Your task to perform on an android device: turn off location history Image 0: 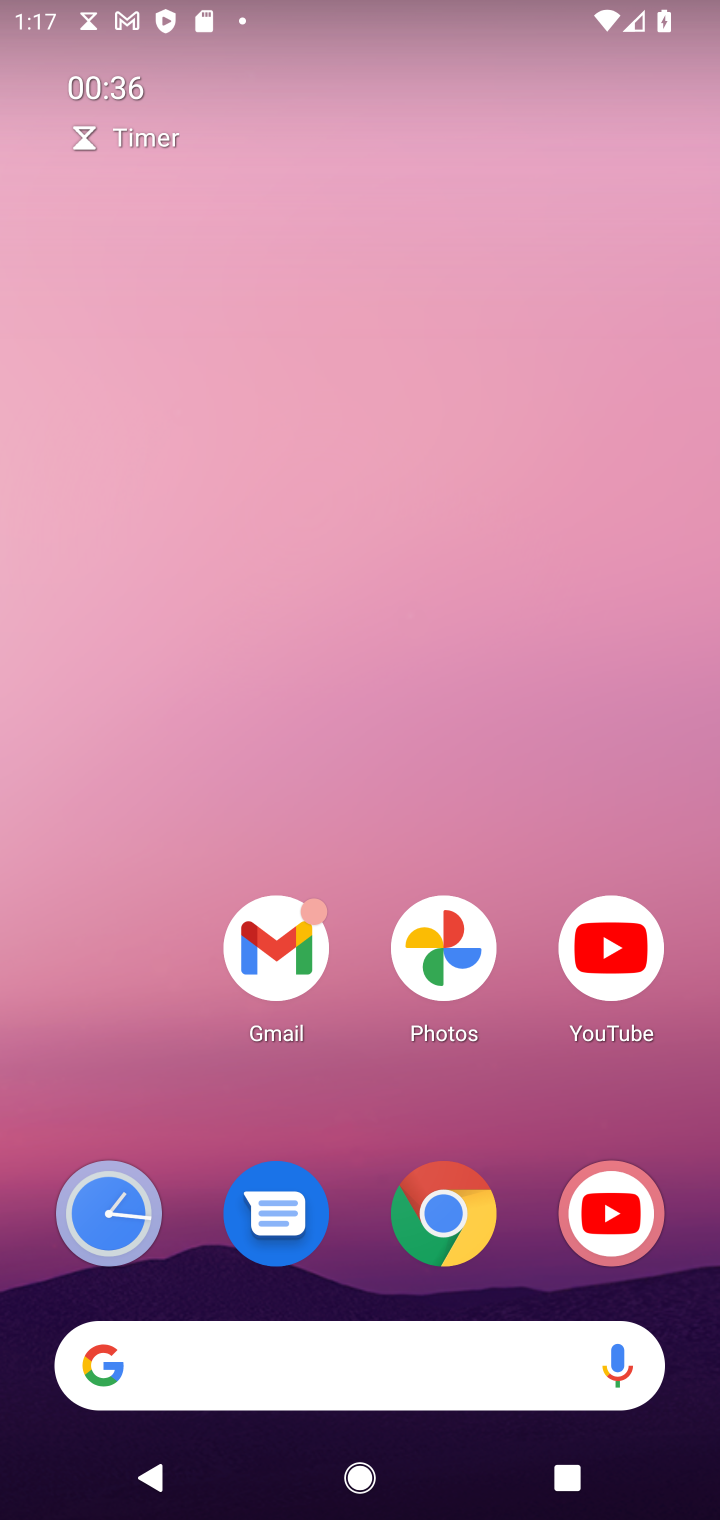
Step 0: drag from (446, 1355) to (645, 0)
Your task to perform on an android device: turn off location history Image 1: 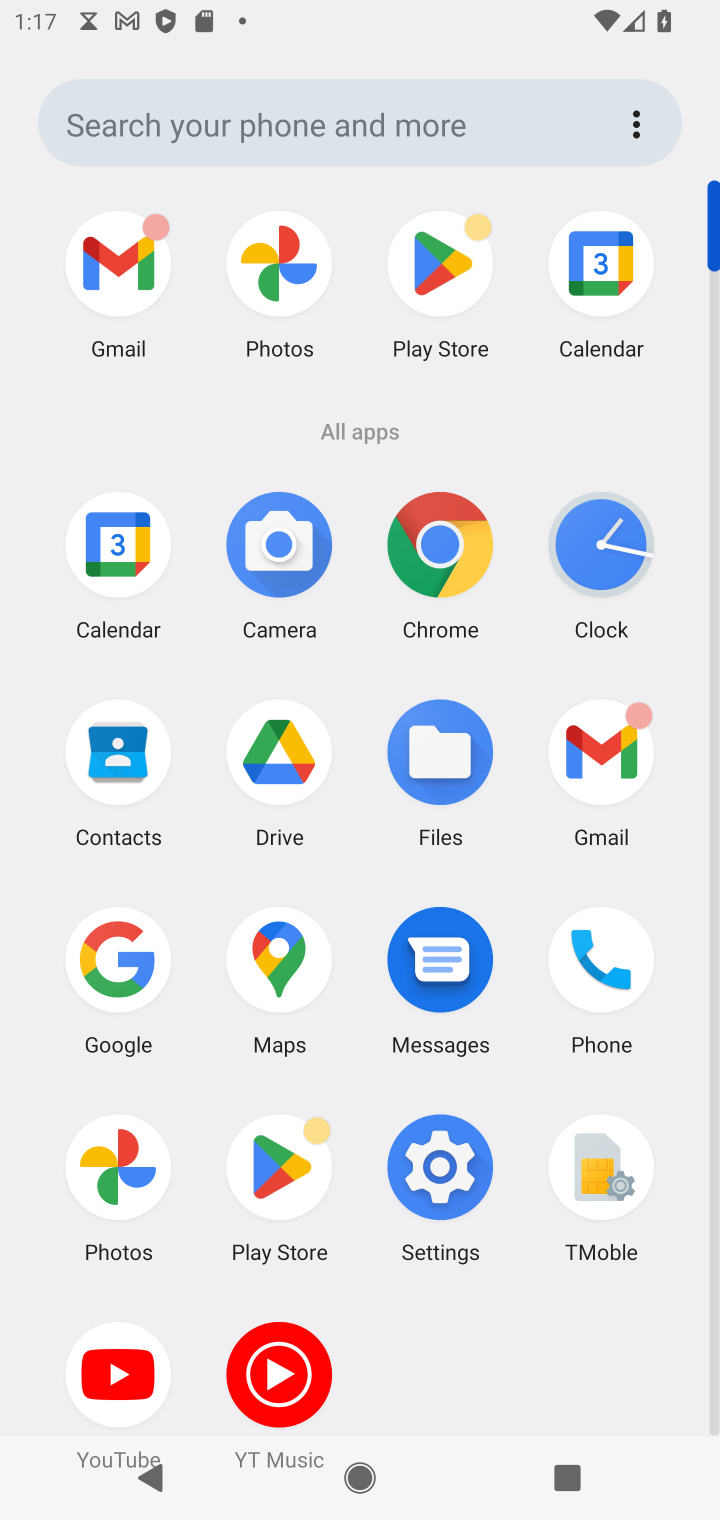
Step 1: click (442, 1183)
Your task to perform on an android device: turn off location history Image 2: 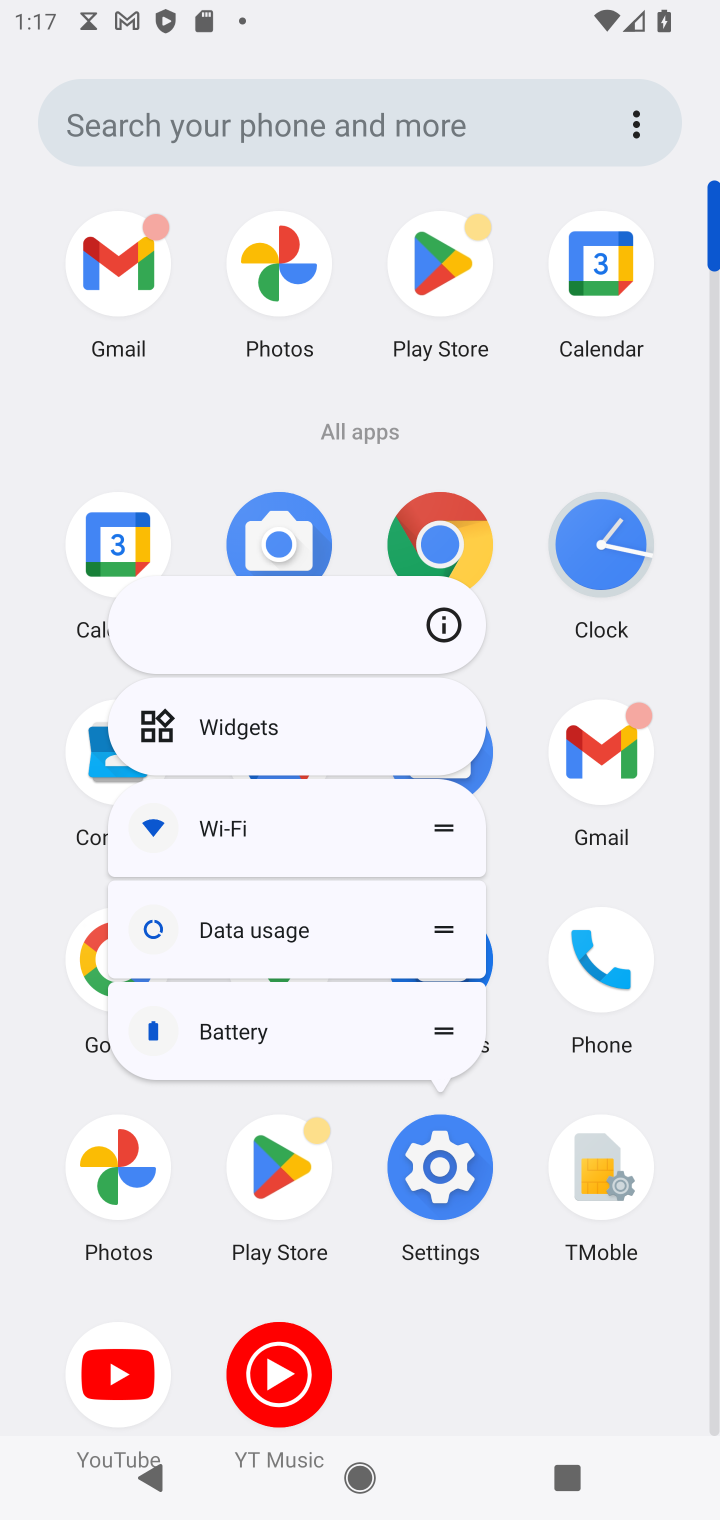
Step 2: click (442, 1183)
Your task to perform on an android device: turn off location history Image 3: 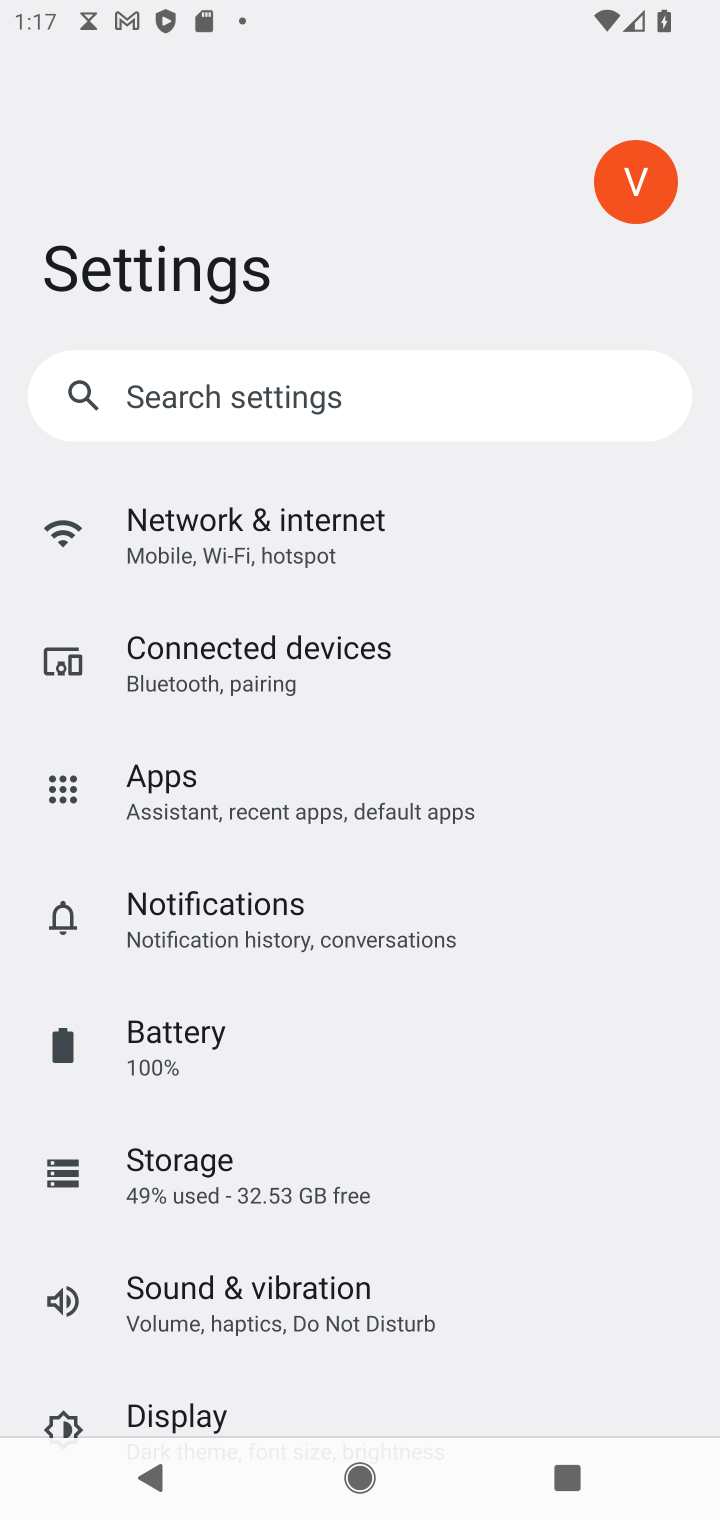
Step 3: drag from (394, 1258) to (374, 493)
Your task to perform on an android device: turn off location history Image 4: 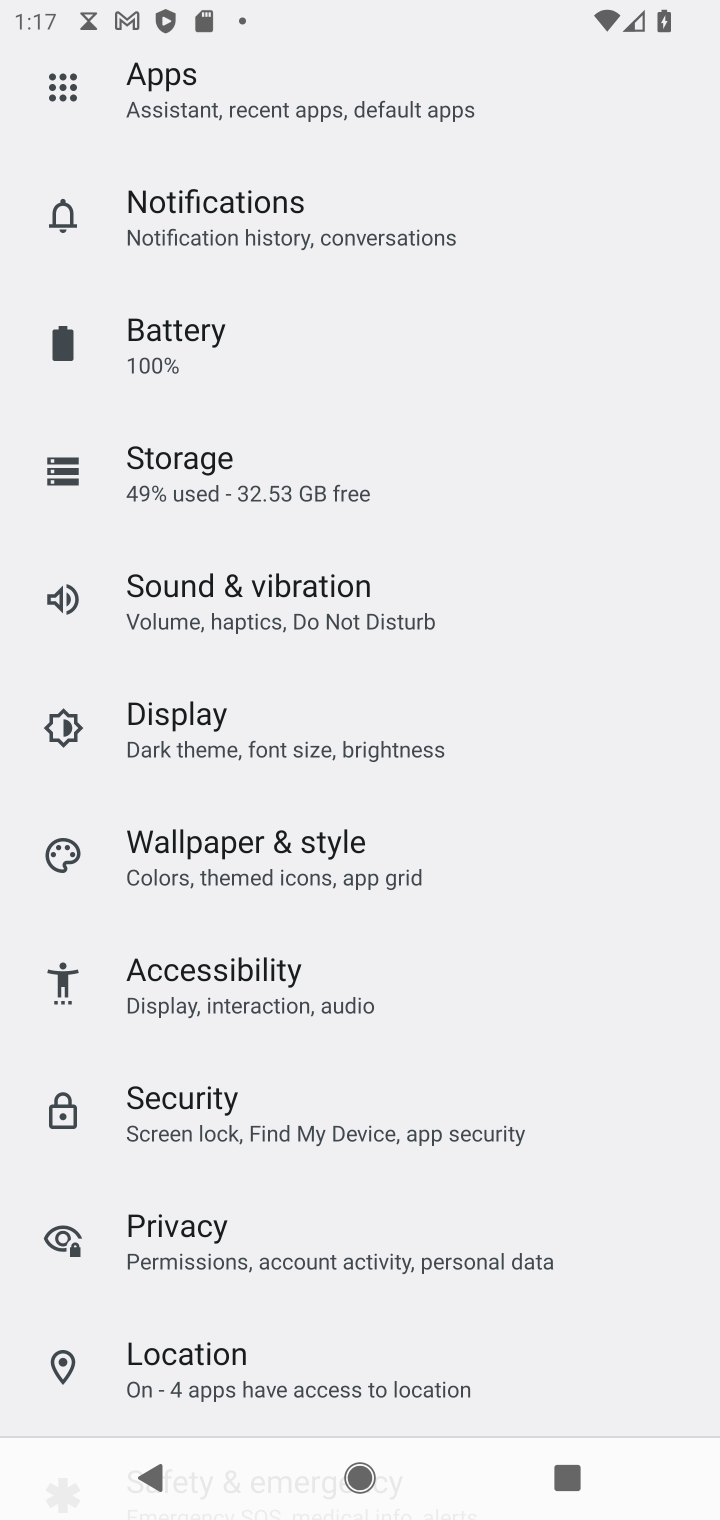
Step 4: click (323, 1359)
Your task to perform on an android device: turn off location history Image 5: 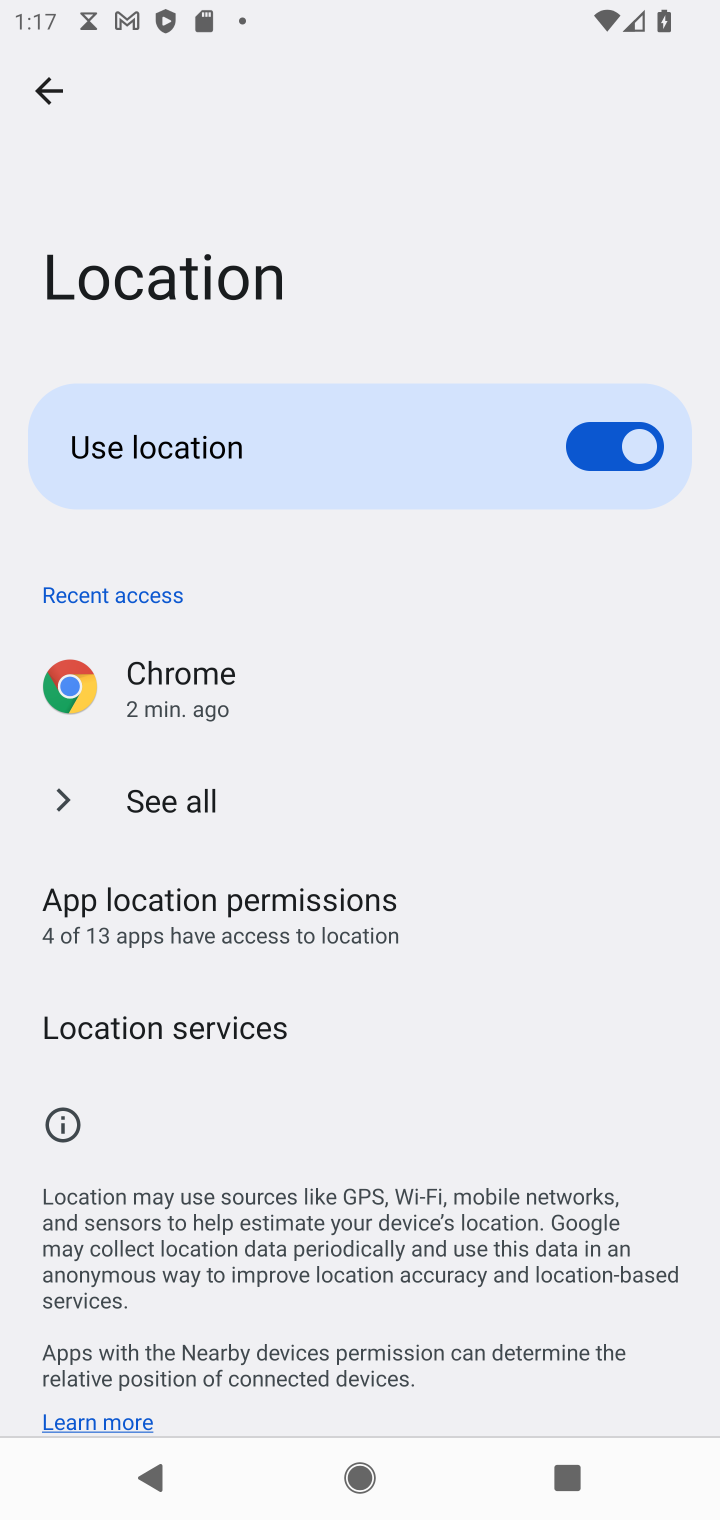
Step 5: drag from (339, 1215) to (506, 497)
Your task to perform on an android device: turn off location history Image 6: 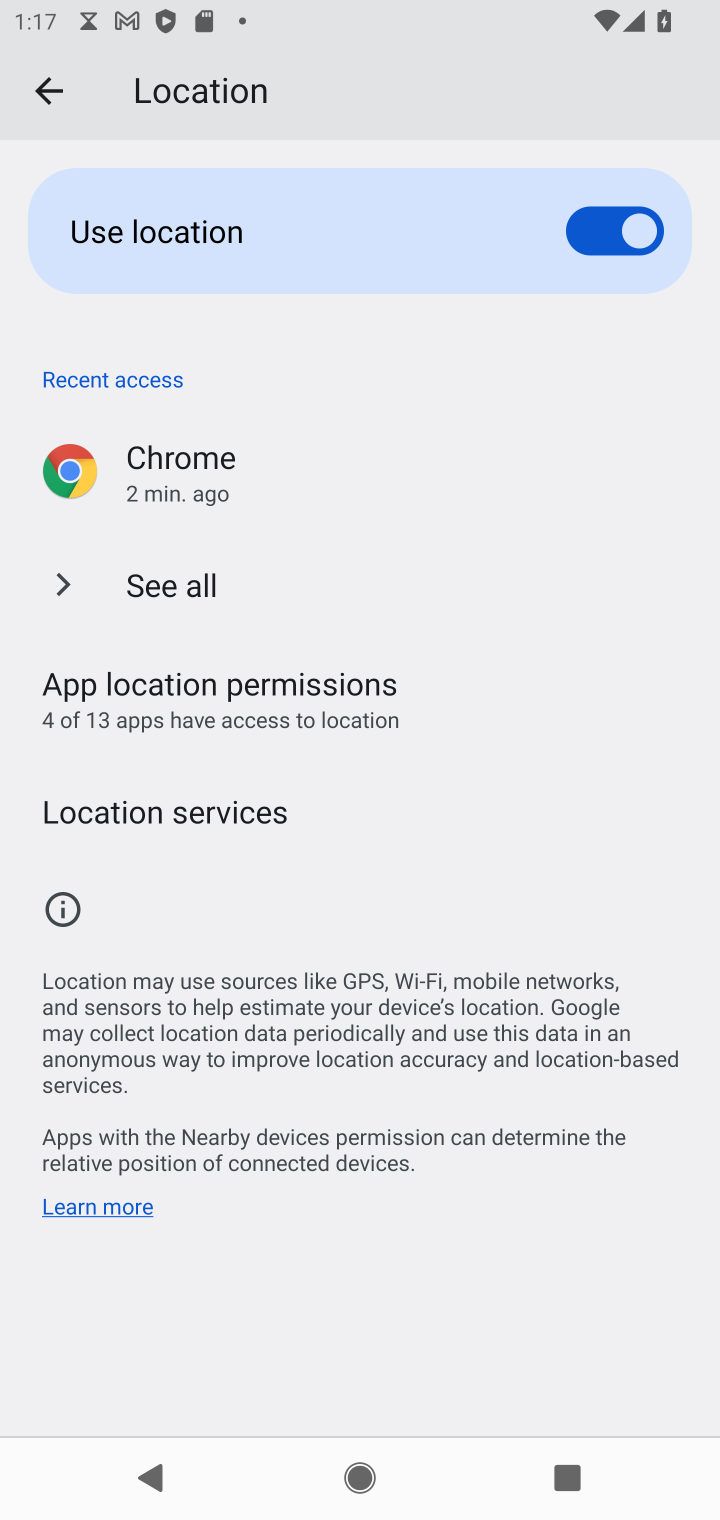
Step 6: click (232, 800)
Your task to perform on an android device: turn off location history Image 7: 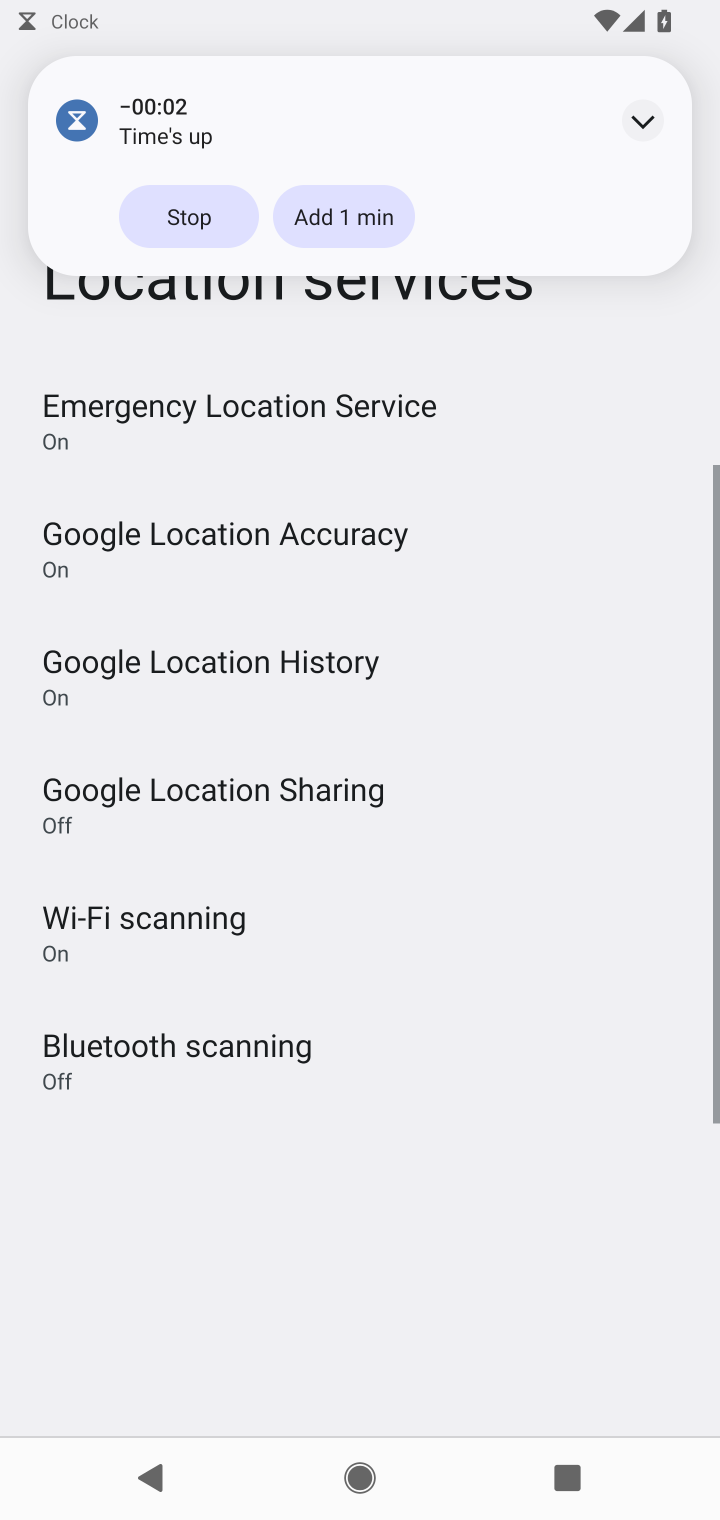
Step 7: click (257, 680)
Your task to perform on an android device: turn off location history Image 8: 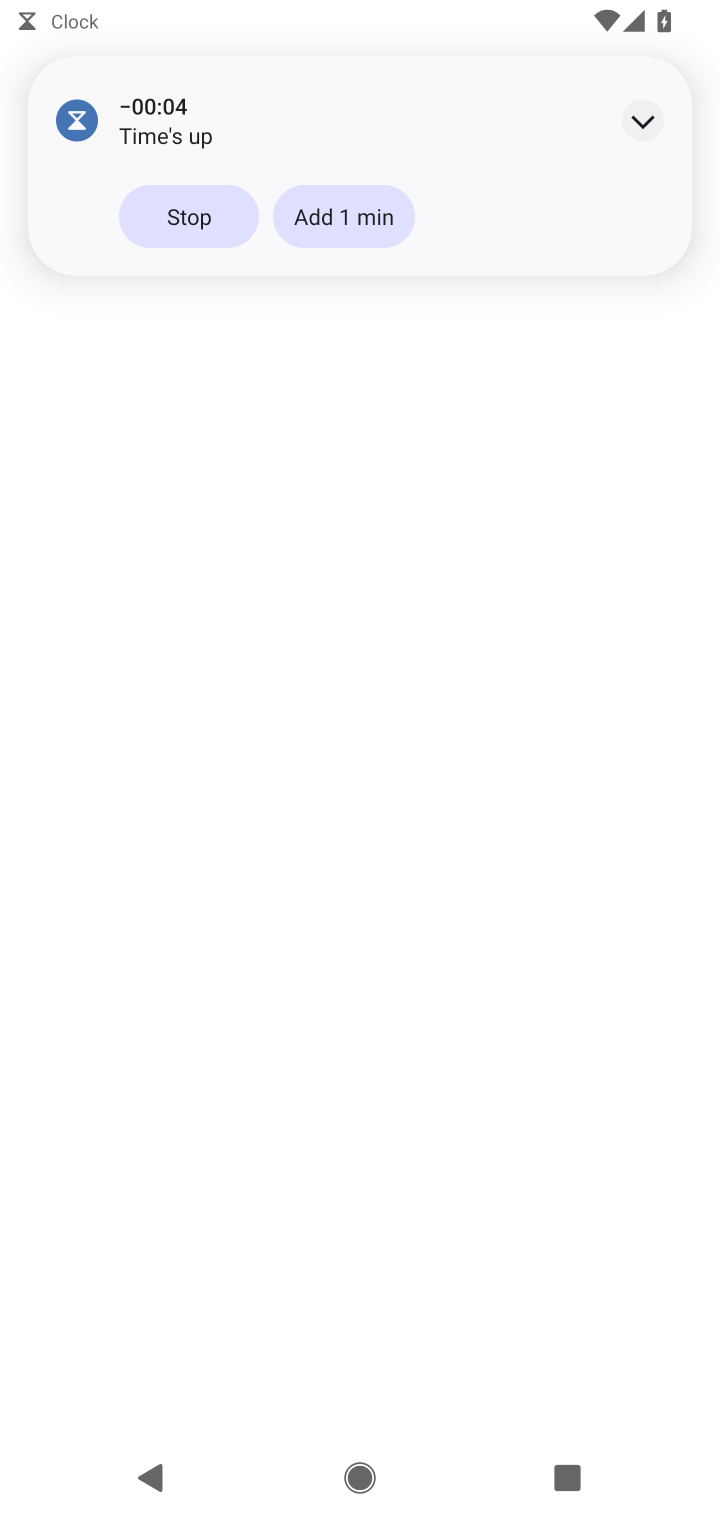
Step 8: click (189, 213)
Your task to perform on an android device: turn off location history Image 9: 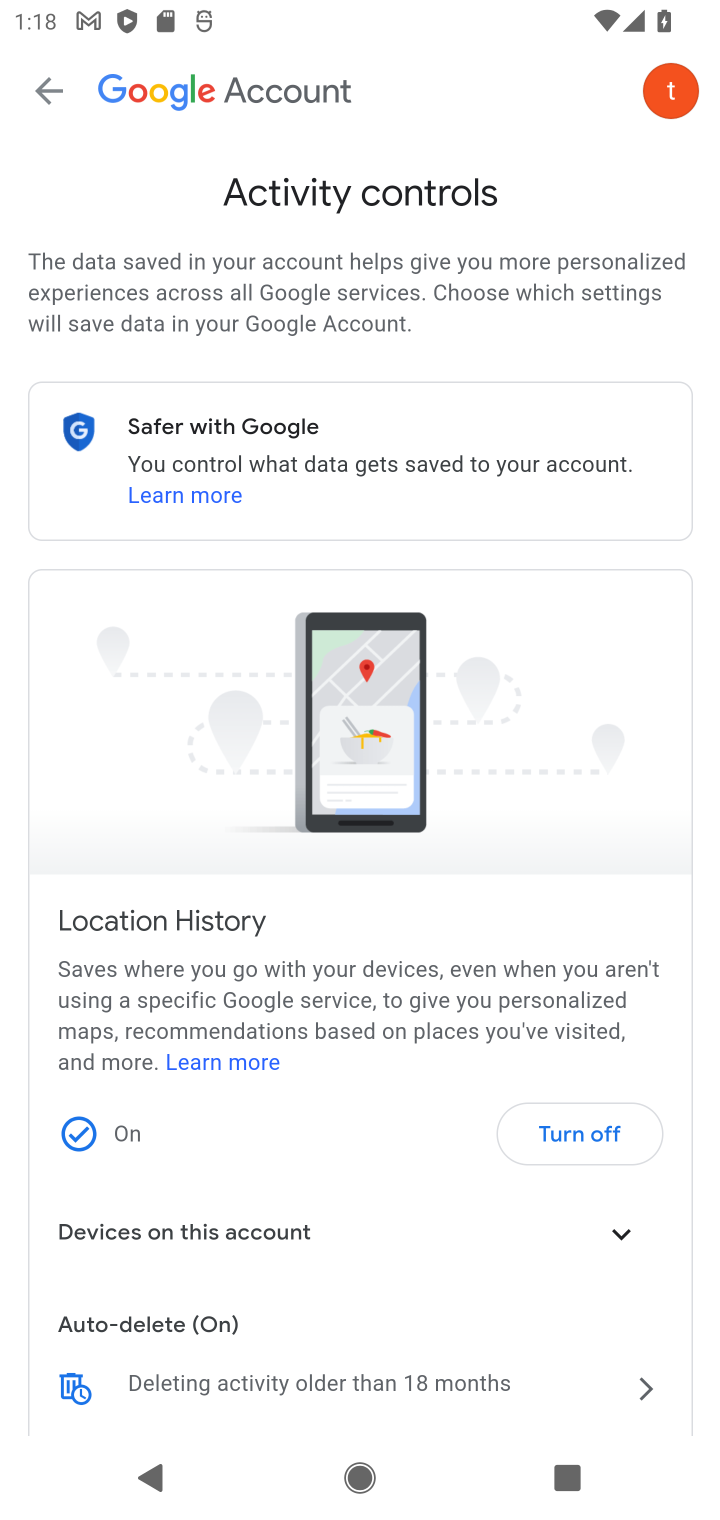
Step 9: click (610, 1133)
Your task to perform on an android device: turn off location history Image 10: 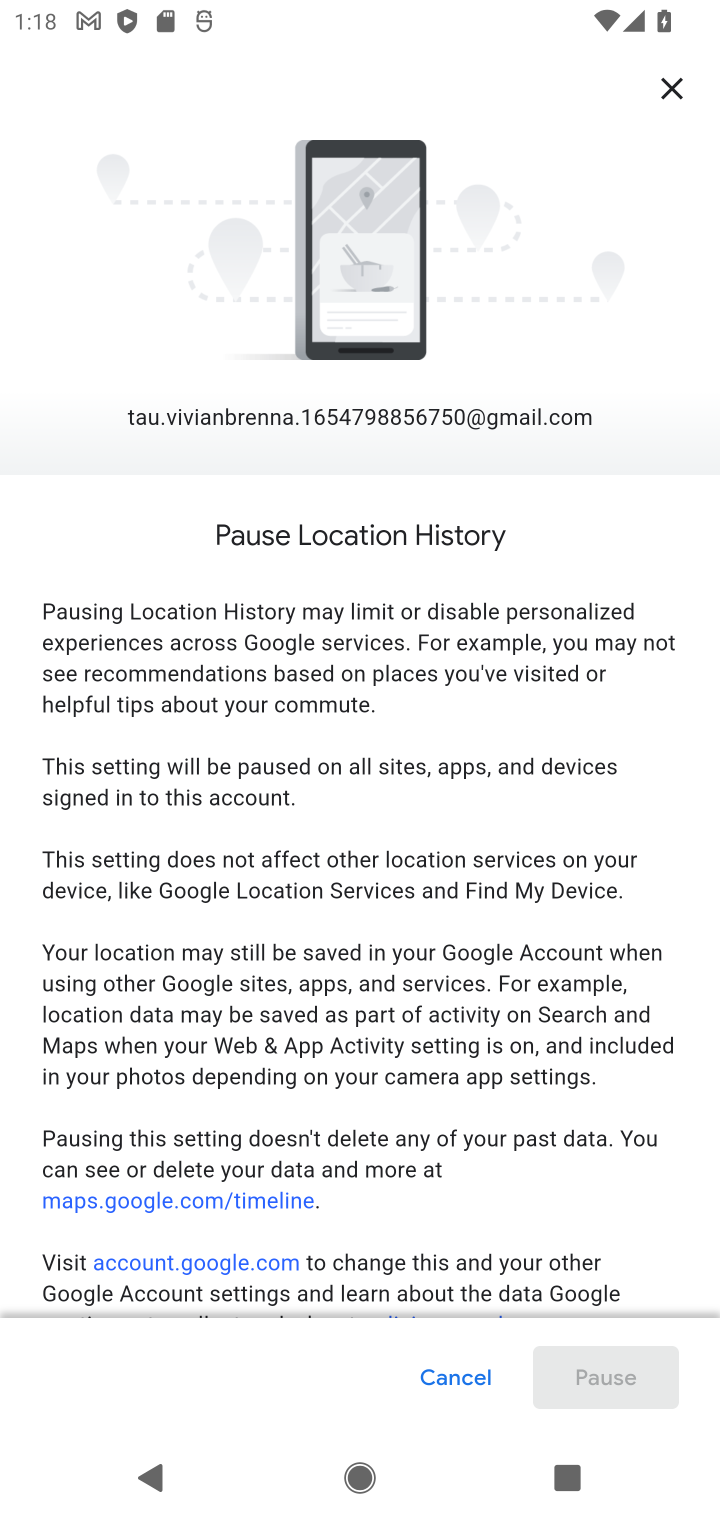
Step 10: drag from (514, 1196) to (717, 1416)
Your task to perform on an android device: turn off location history Image 11: 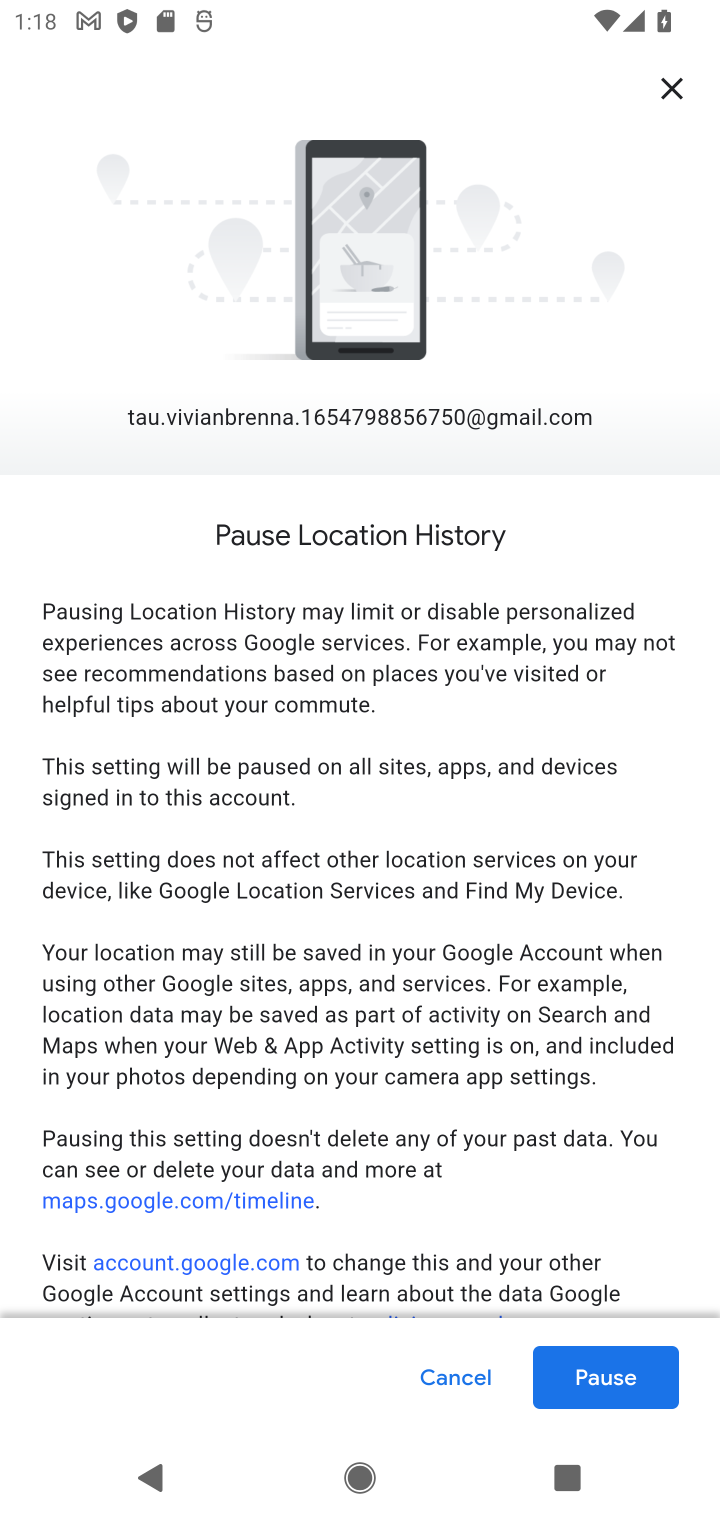
Step 11: click (594, 1380)
Your task to perform on an android device: turn off location history Image 12: 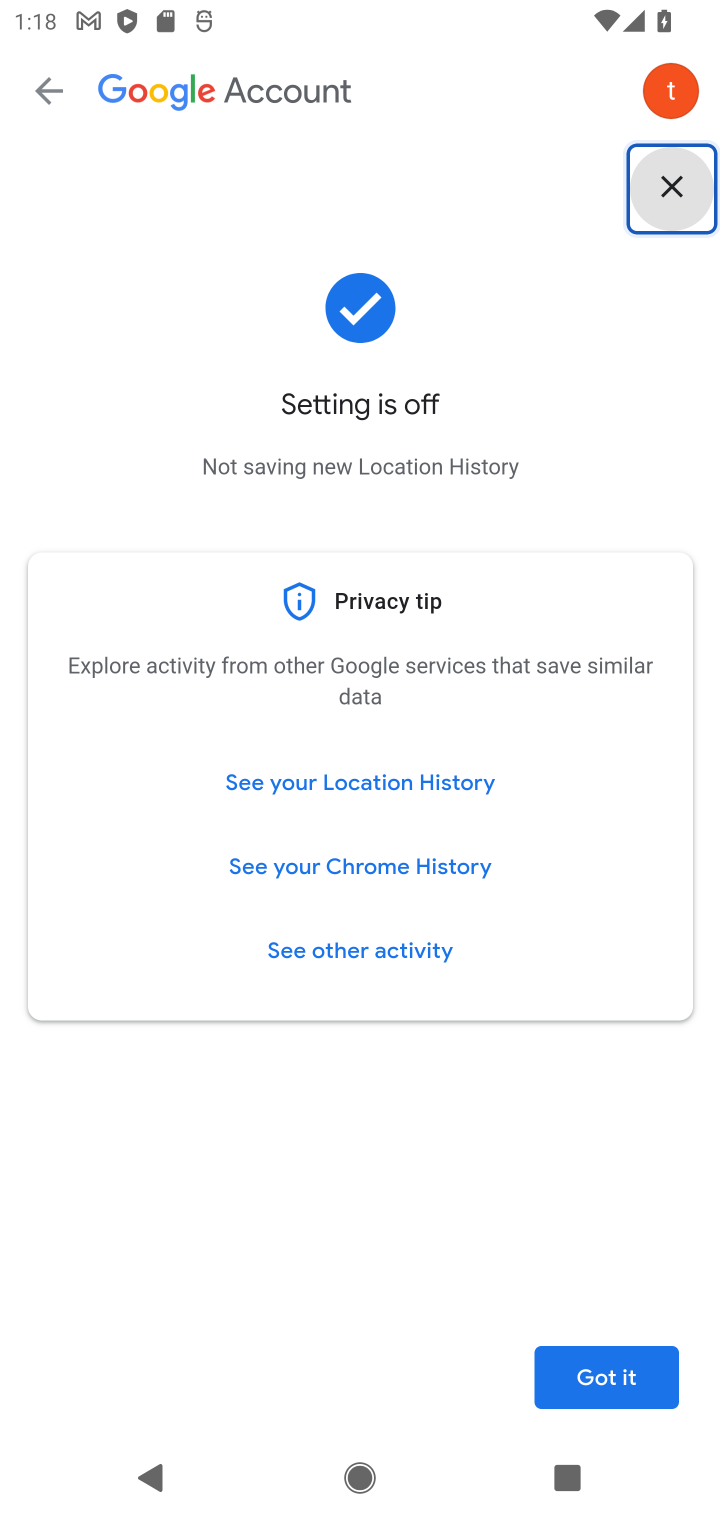
Step 12: task complete